Your task to perform on an android device: Open Google Maps and go to "Timeline" Image 0: 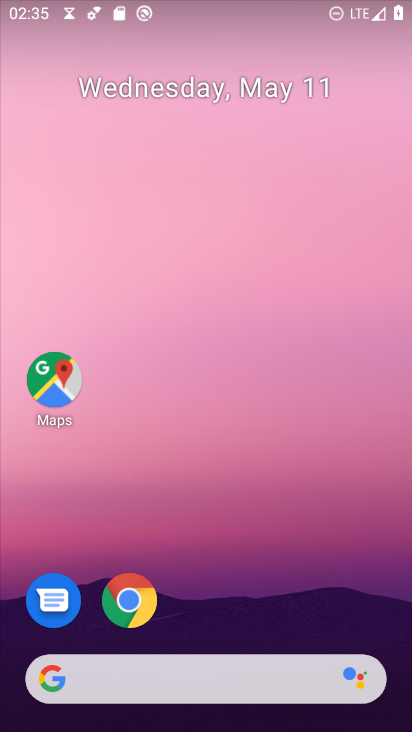
Step 0: drag from (206, 593) to (238, 277)
Your task to perform on an android device: Open Google Maps and go to "Timeline" Image 1: 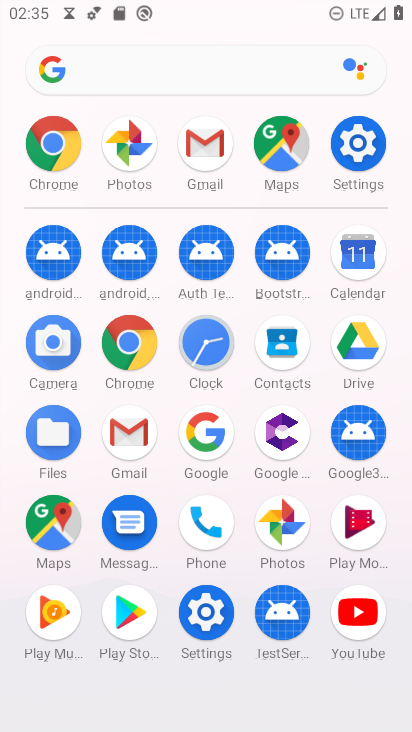
Step 1: click (54, 514)
Your task to perform on an android device: Open Google Maps and go to "Timeline" Image 2: 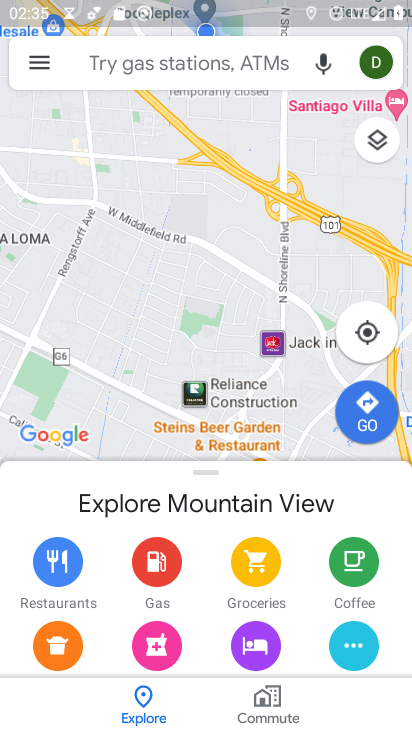
Step 2: click (34, 59)
Your task to perform on an android device: Open Google Maps and go to "Timeline" Image 3: 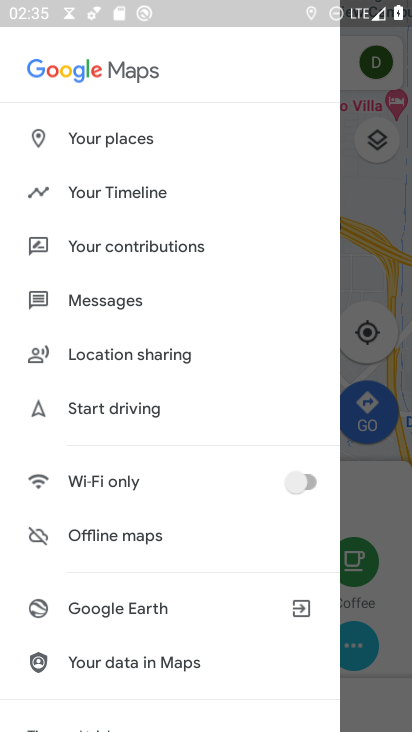
Step 3: click (100, 189)
Your task to perform on an android device: Open Google Maps and go to "Timeline" Image 4: 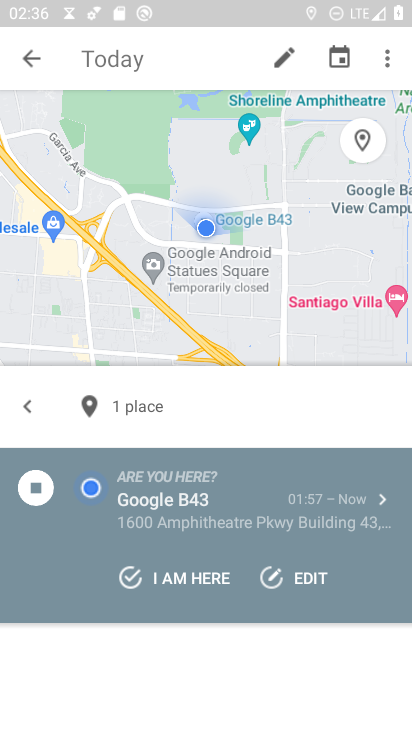
Step 4: task complete